Your task to perform on an android device: Do I have any events today? Image 0: 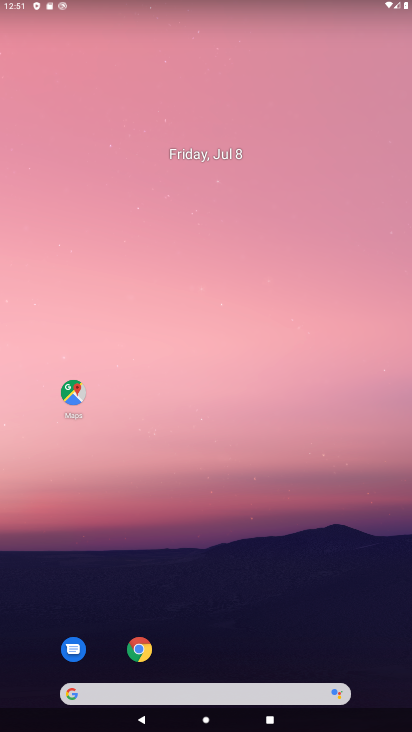
Step 0: drag from (14, 706) to (288, 31)
Your task to perform on an android device: Do I have any events today? Image 1: 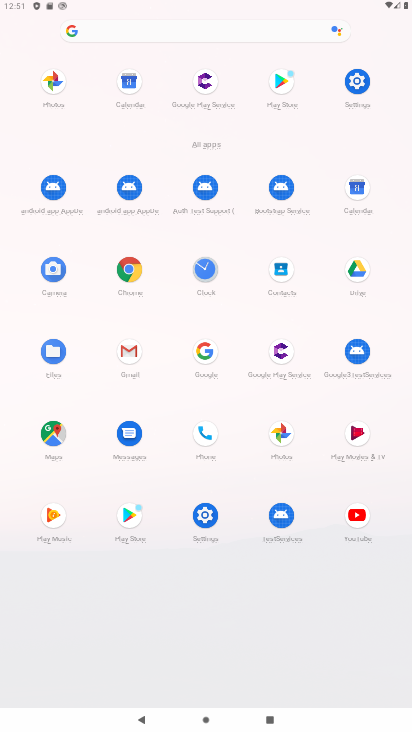
Step 1: click (357, 186)
Your task to perform on an android device: Do I have any events today? Image 2: 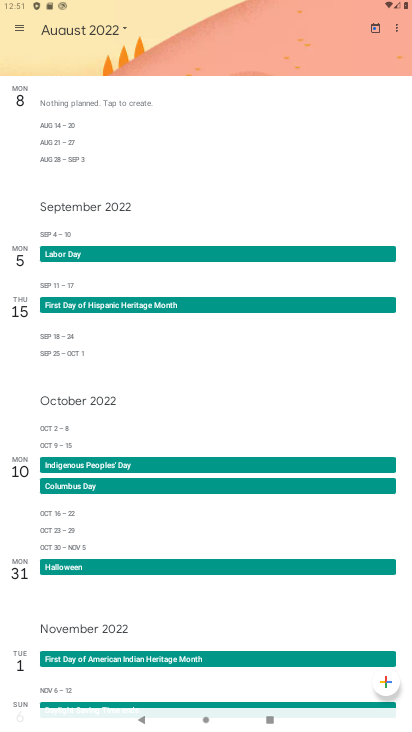
Step 2: click (19, 22)
Your task to perform on an android device: Do I have any events today? Image 3: 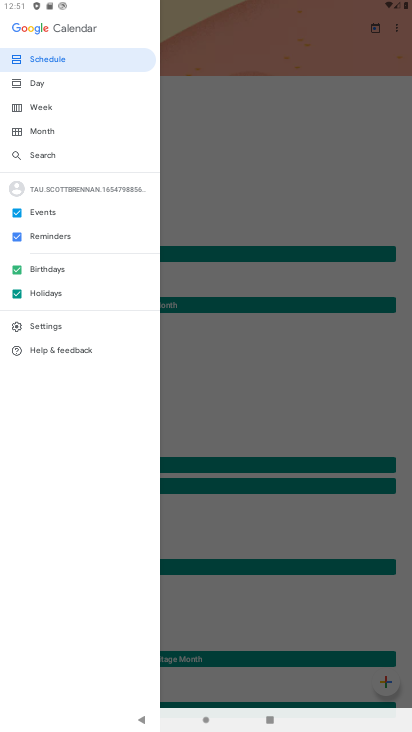
Step 3: click (54, 216)
Your task to perform on an android device: Do I have any events today? Image 4: 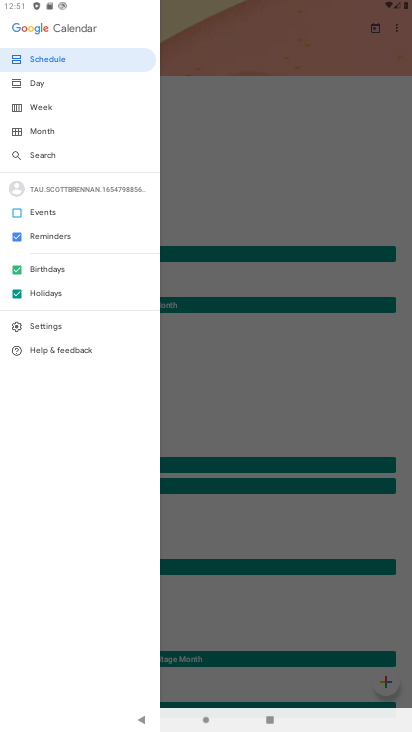
Step 4: click (22, 214)
Your task to perform on an android device: Do I have any events today? Image 5: 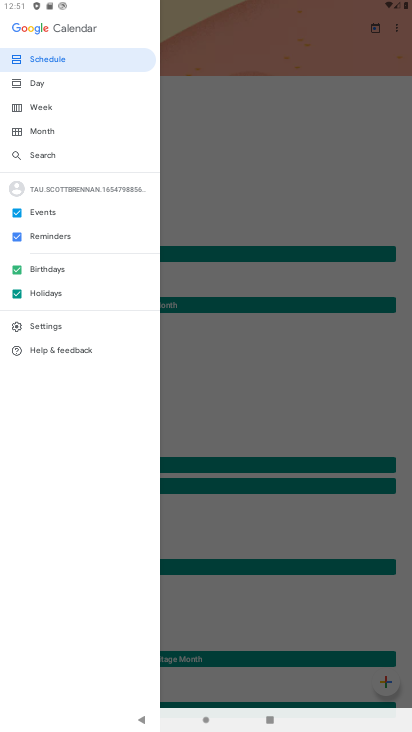
Step 5: click (50, 135)
Your task to perform on an android device: Do I have any events today? Image 6: 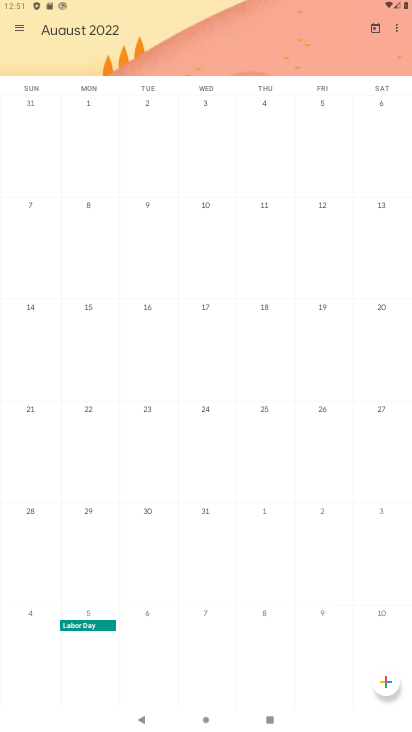
Step 6: task complete